Your task to perform on an android device: snooze an email in the gmail app Image 0: 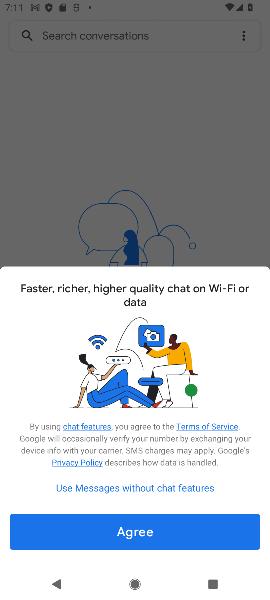
Step 0: press home button
Your task to perform on an android device: snooze an email in the gmail app Image 1: 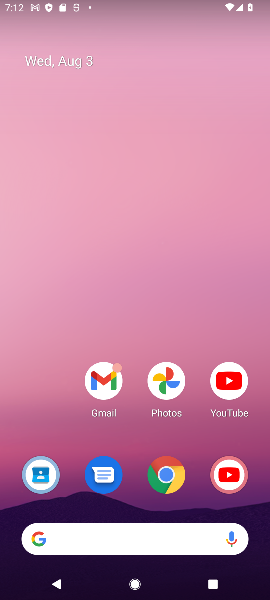
Step 1: click (110, 387)
Your task to perform on an android device: snooze an email in the gmail app Image 2: 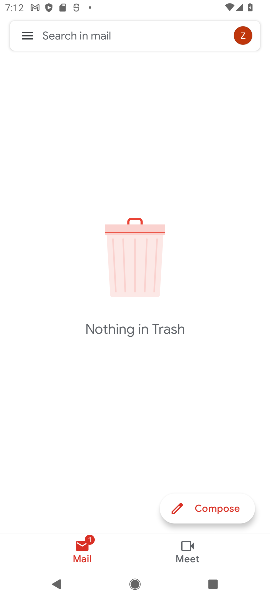
Step 2: click (24, 32)
Your task to perform on an android device: snooze an email in the gmail app Image 3: 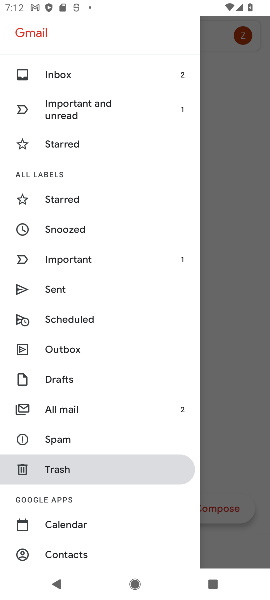
Step 3: click (123, 405)
Your task to perform on an android device: snooze an email in the gmail app Image 4: 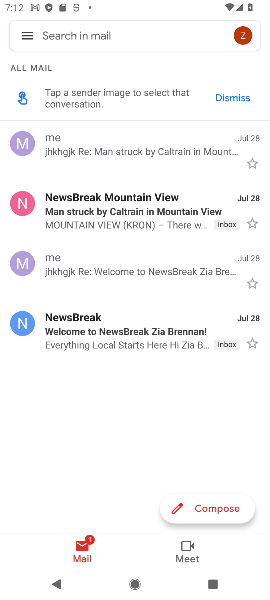
Step 4: click (144, 278)
Your task to perform on an android device: snooze an email in the gmail app Image 5: 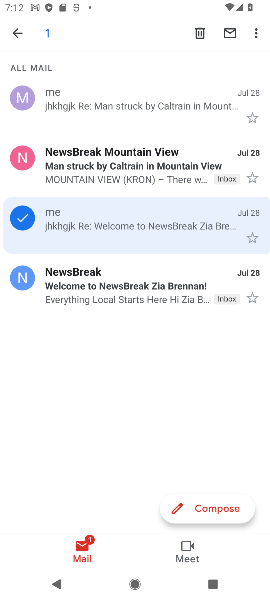
Step 5: click (259, 33)
Your task to perform on an android device: snooze an email in the gmail app Image 6: 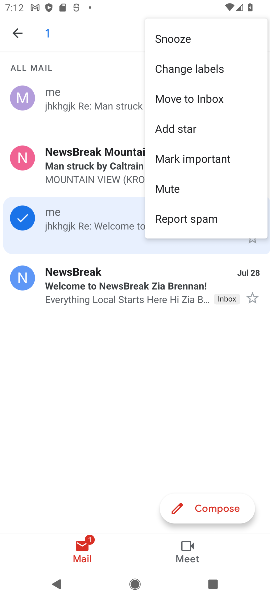
Step 6: click (189, 33)
Your task to perform on an android device: snooze an email in the gmail app Image 7: 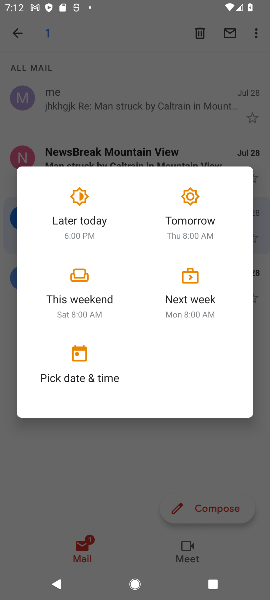
Step 7: click (193, 282)
Your task to perform on an android device: snooze an email in the gmail app Image 8: 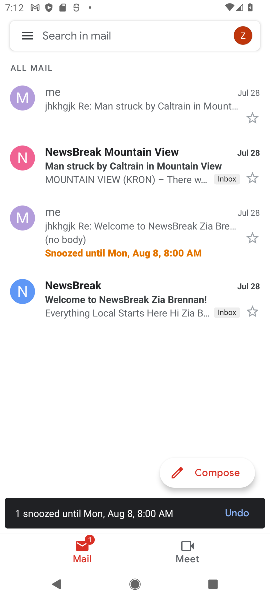
Step 8: task complete